Your task to perform on an android device: Go to privacy settings Image 0: 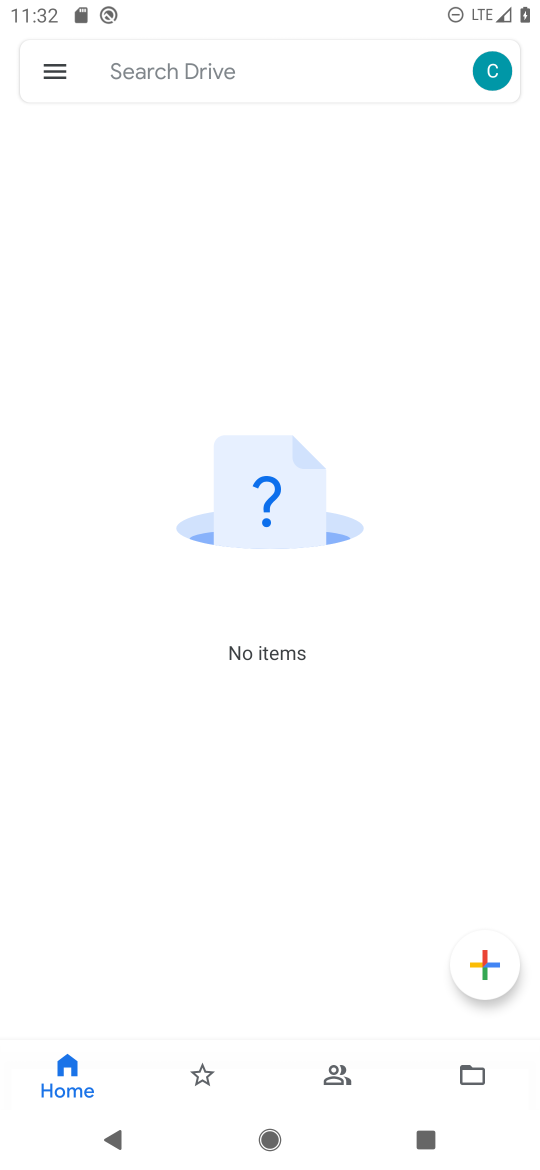
Step 0: press home button
Your task to perform on an android device: Go to privacy settings Image 1: 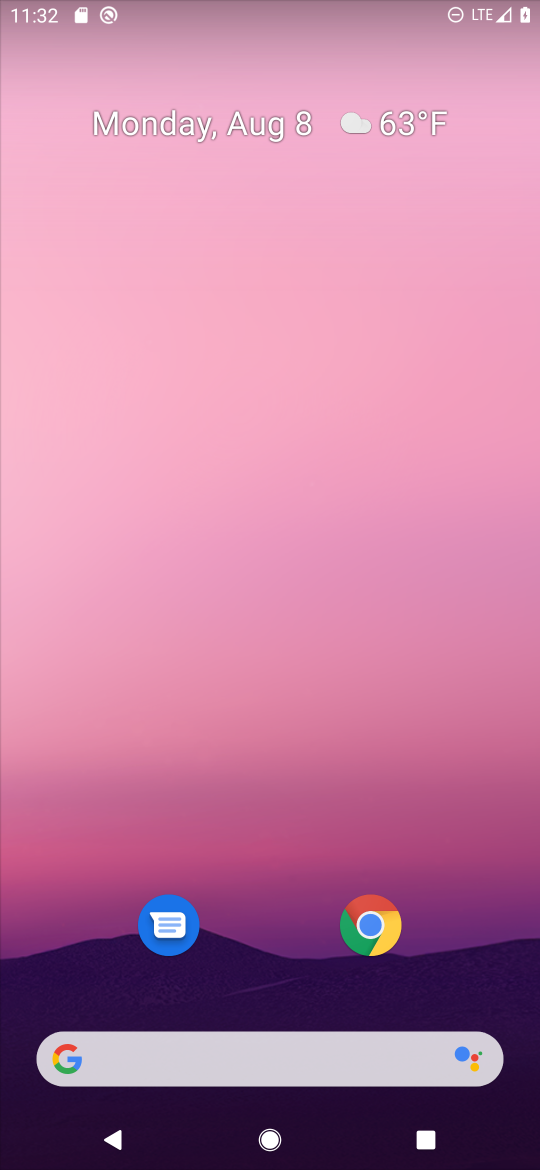
Step 1: drag from (237, 868) to (287, 205)
Your task to perform on an android device: Go to privacy settings Image 2: 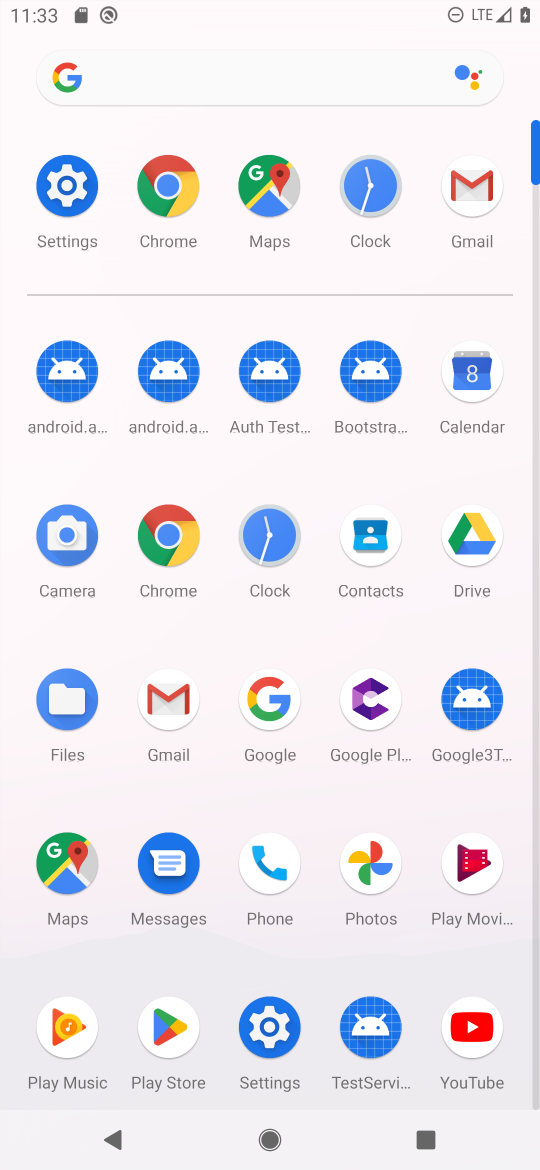
Step 2: click (264, 1017)
Your task to perform on an android device: Go to privacy settings Image 3: 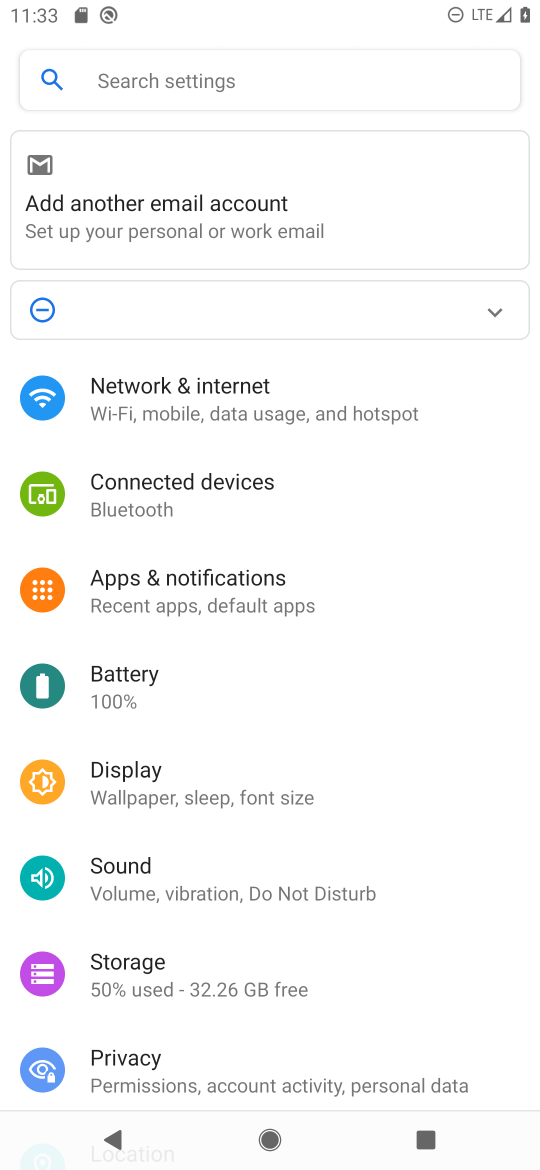
Step 3: click (133, 1071)
Your task to perform on an android device: Go to privacy settings Image 4: 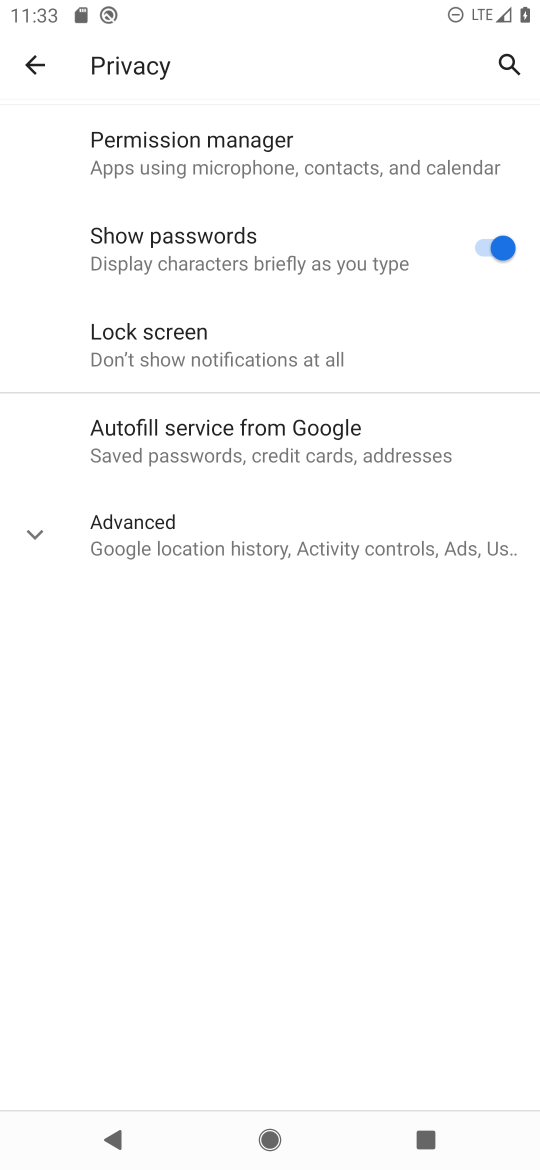
Step 4: task complete